Your task to perform on an android device: Toggle the flashlight Image 0: 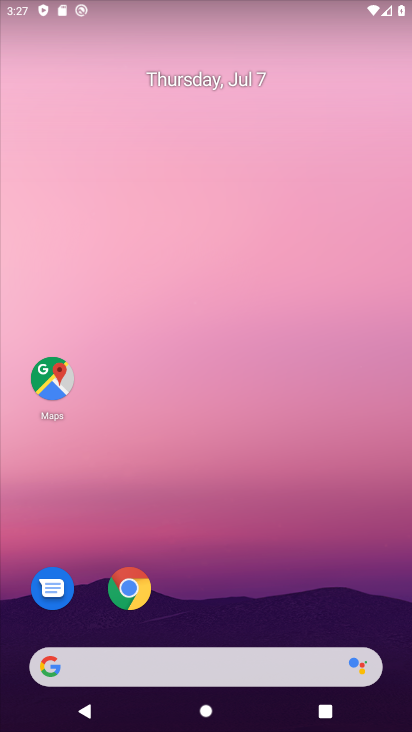
Step 0: drag from (329, 12) to (291, 492)
Your task to perform on an android device: Toggle the flashlight Image 1: 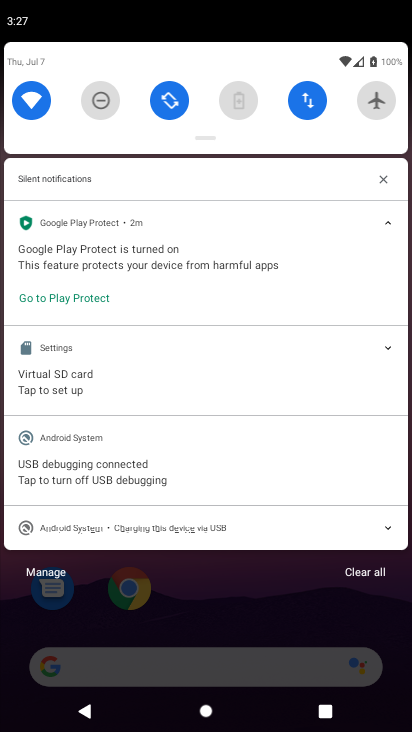
Step 1: task complete